Your task to perform on an android device: Open Google Chrome Image 0: 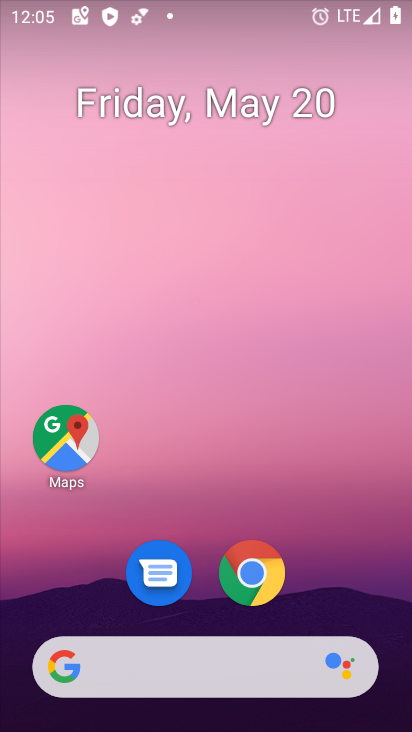
Step 0: click (245, 586)
Your task to perform on an android device: Open Google Chrome Image 1: 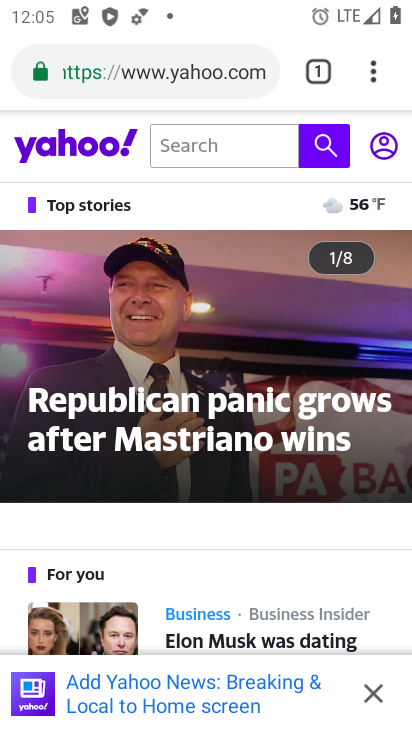
Step 1: task complete